Your task to perform on an android device: stop showing notifications on the lock screen Image 0: 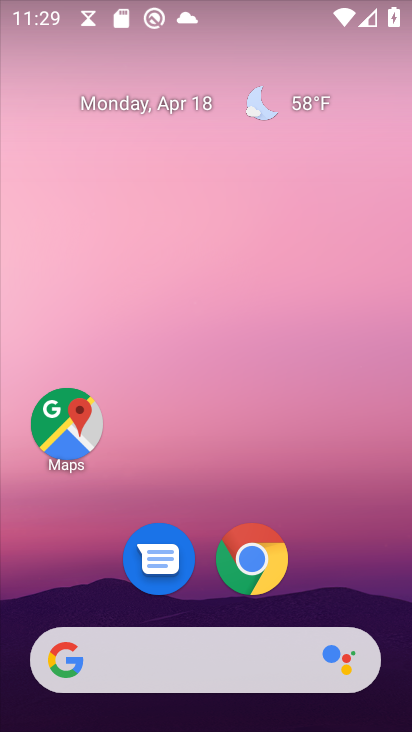
Step 0: drag from (314, 569) to (294, 104)
Your task to perform on an android device: stop showing notifications on the lock screen Image 1: 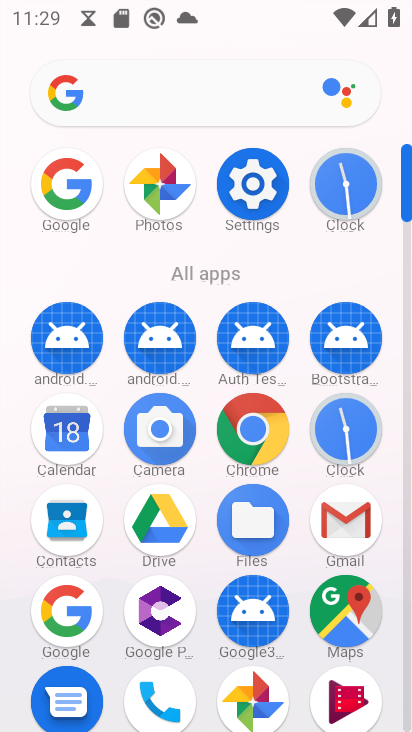
Step 1: click (242, 195)
Your task to perform on an android device: stop showing notifications on the lock screen Image 2: 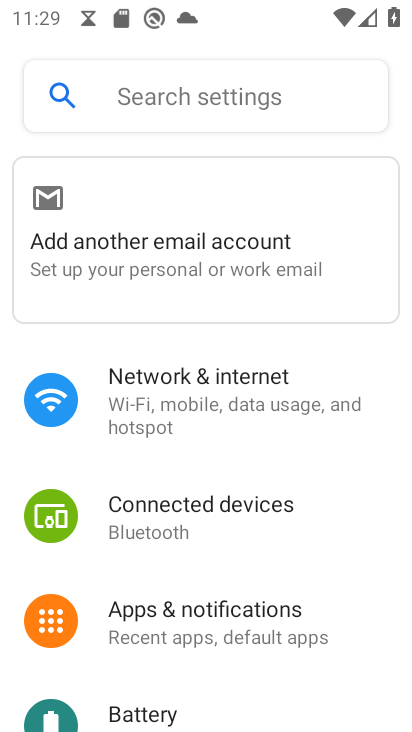
Step 2: click (128, 628)
Your task to perform on an android device: stop showing notifications on the lock screen Image 3: 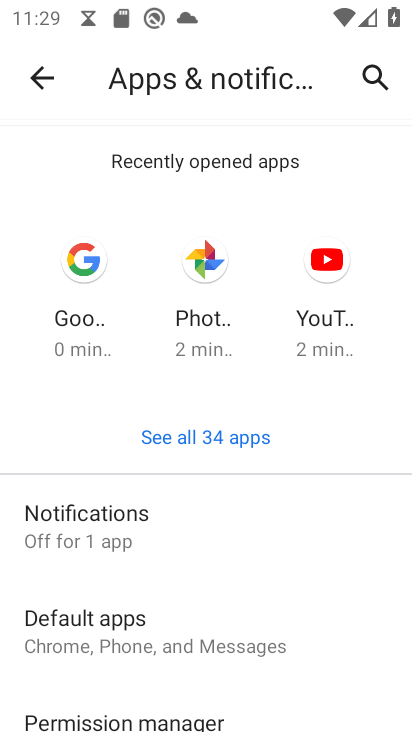
Step 3: click (93, 551)
Your task to perform on an android device: stop showing notifications on the lock screen Image 4: 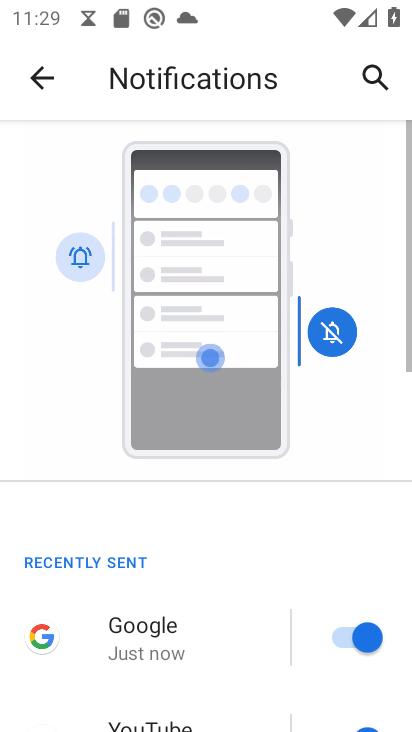
Step 4: drag from (184, 673) to (168, 187)
Your task to perform on an android device: stop showing notifications on the lock screen Image 5: 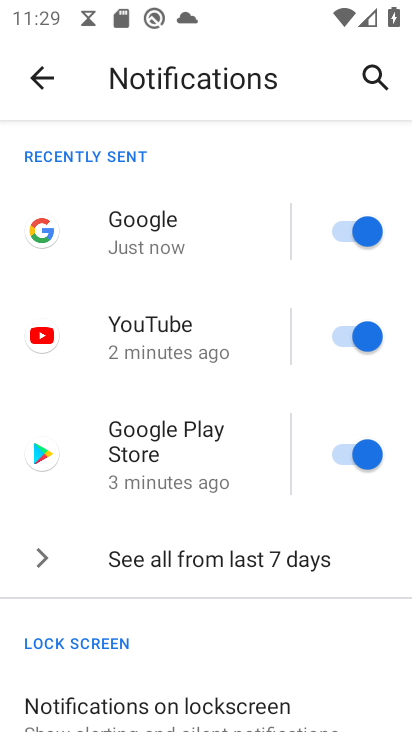
Step 5: click (122, 706)
Your task to perform on an android device: stop showing notifications on the lock screen Image 6: 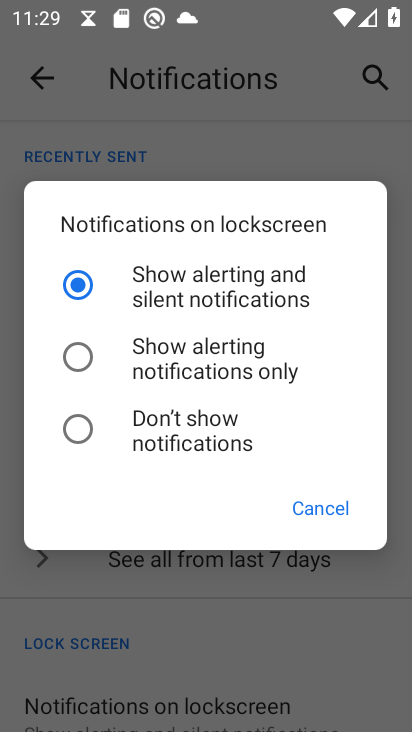
Step 6: click (155, 432)
Your task to perform on an android device: stop showing notifications on the lock screen Image 7: 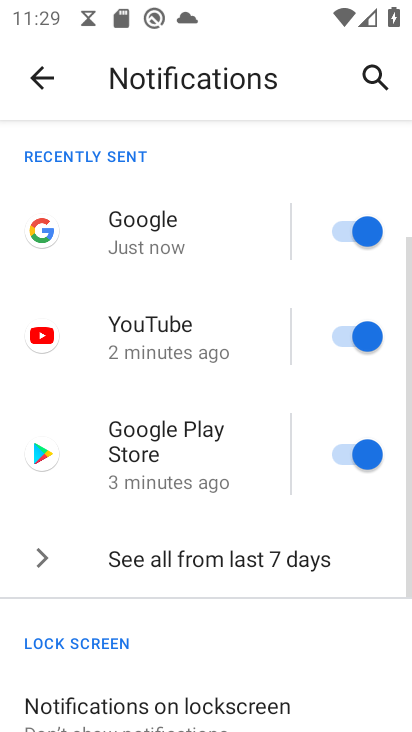
Step 7: task complete